Your task to perform on an android device: What's the weather? Image 0: 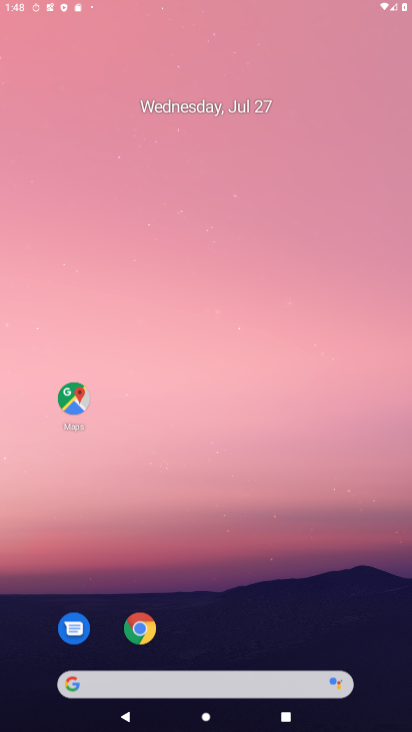
Step 0: drag from (316, 528) to (80, 37)
Your task to perform on an android device: What's the weather? Image 1: 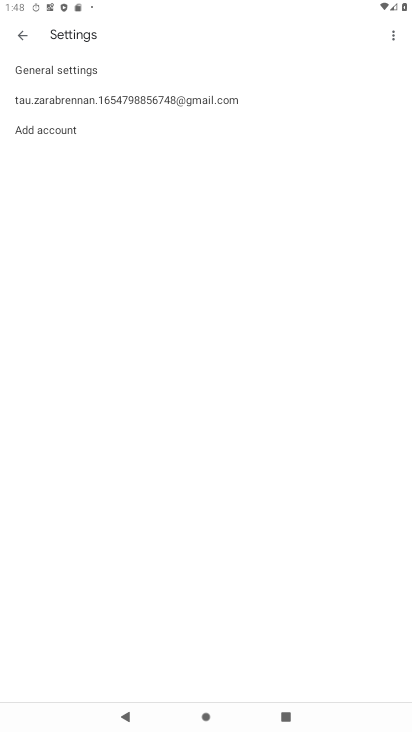
Step 1: press home button
Your task to perform on an android device: What's the weather? Image 2: 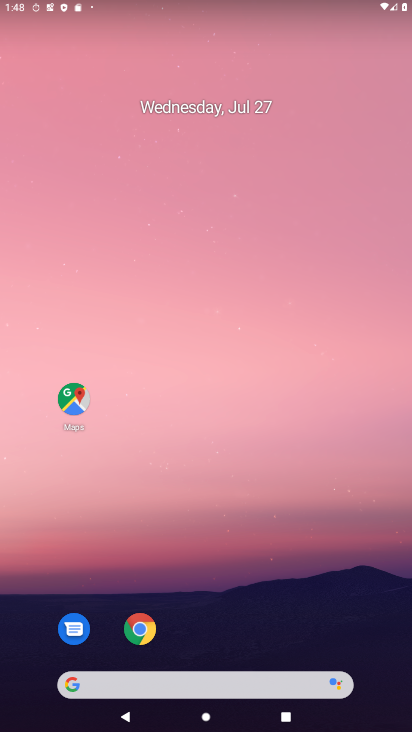
Step 2: drag from (363, 604) to (235, 25)
Your task to perform on an android device: What's the weather? Image 3: 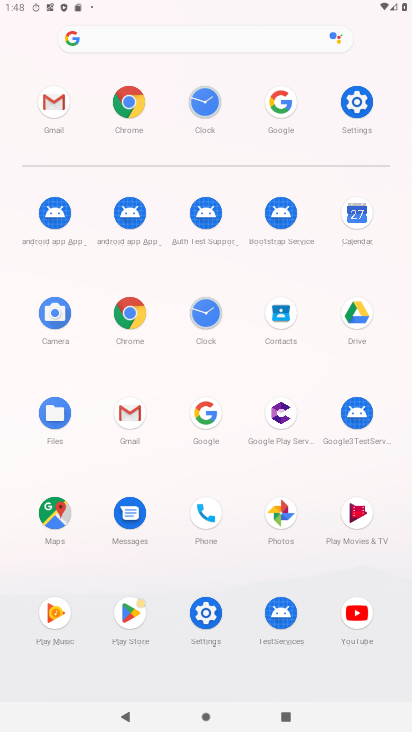
Step 3: click (189, 418)
Your task to perform on an android device: What's the weather? Image 4: 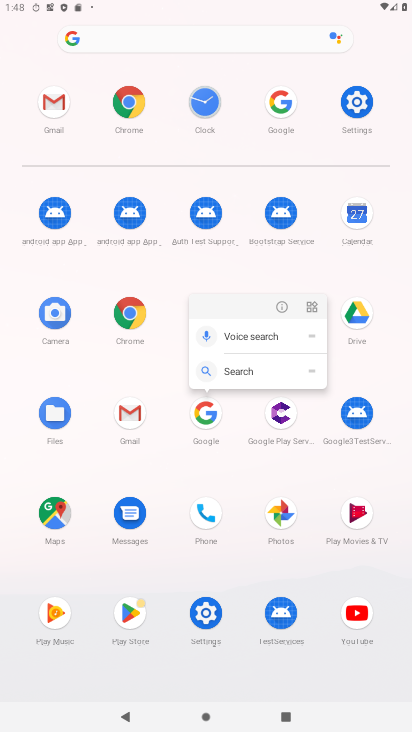
Step 4: click (194, 416)
Your task to perform on an android device: What's the weather? Image 5: 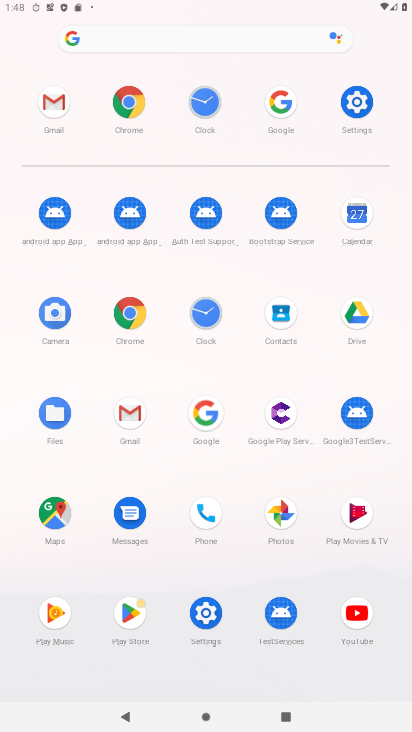
Step 5: click (193, 415)
Your task to perform on an android device: What's the weather? Image 6: 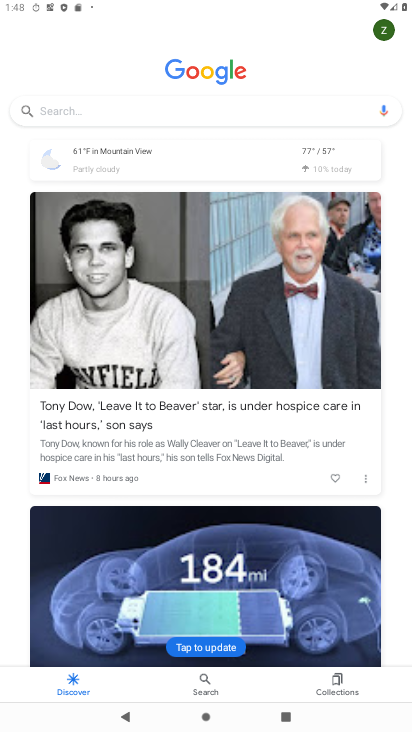
Step 6: click (93, 104)
Your task to perform on an android device: What's the weather? Image 7: 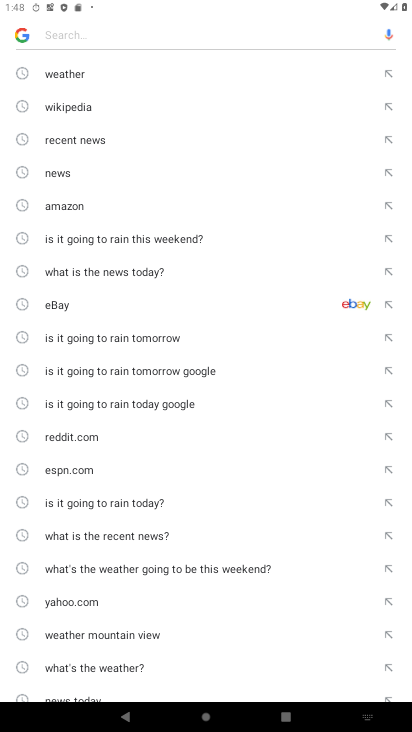
Step 7: click (74, 78)
Your task to perform on an android device: What's the weather? Image 8: 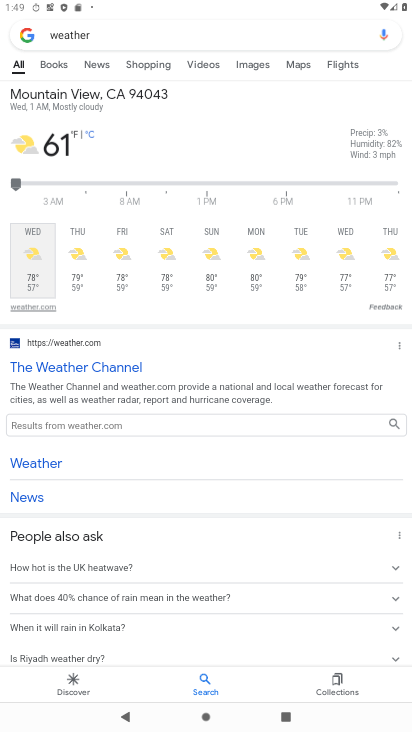
Step 8: task complete